Your task to perform on an android device: Go to wifi settings Image 0: 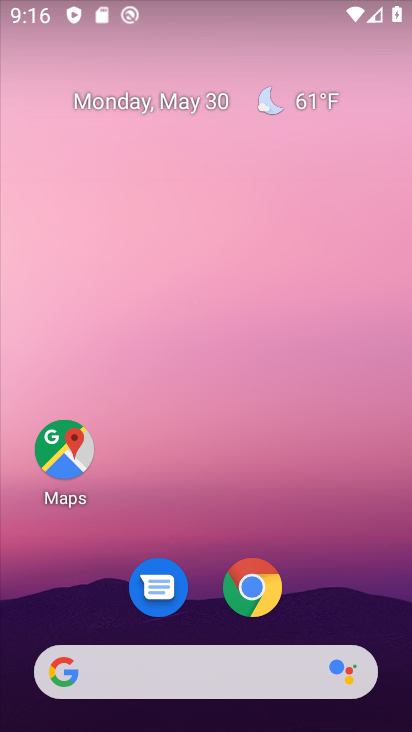
Step 0: drag from (222, 639) to (312, 22)
Your task to perform on an android device: Go to wifi settings Image 1: 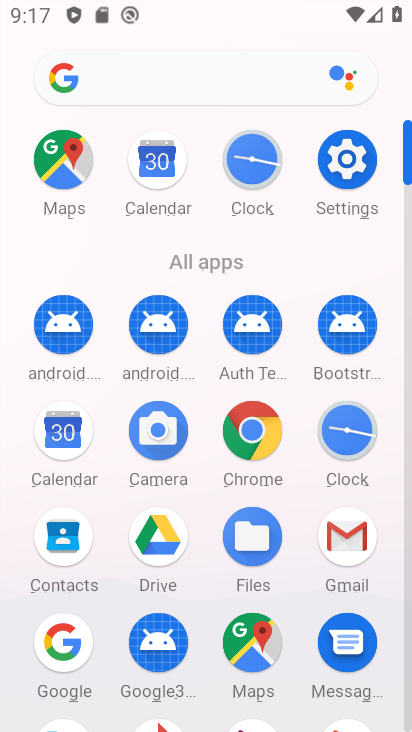
Step 1: click (353, 172)
Your task to perform on an android device: Go to wifi settings Image 2: 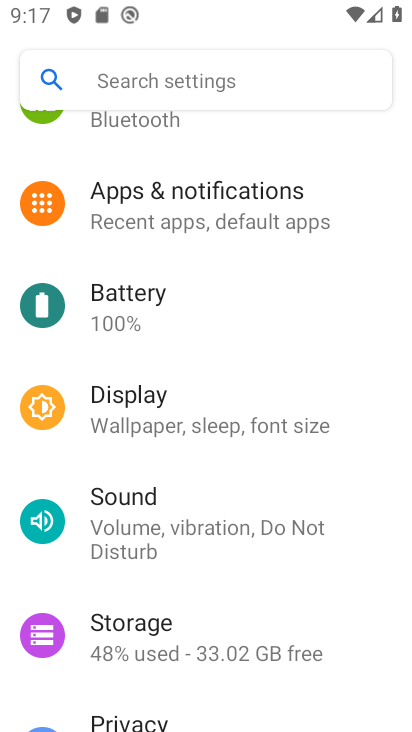
Step 2: drag from (201, 199) to (220, 585)
Your task to perform on an android device: Go to wifi settings Image 3: 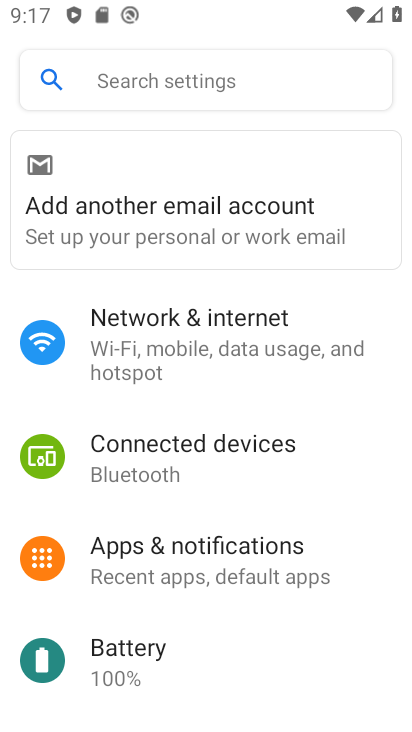
Step 3: click (150, 317)
Your task to perform on an android device: Go to wifi settings Image 4: 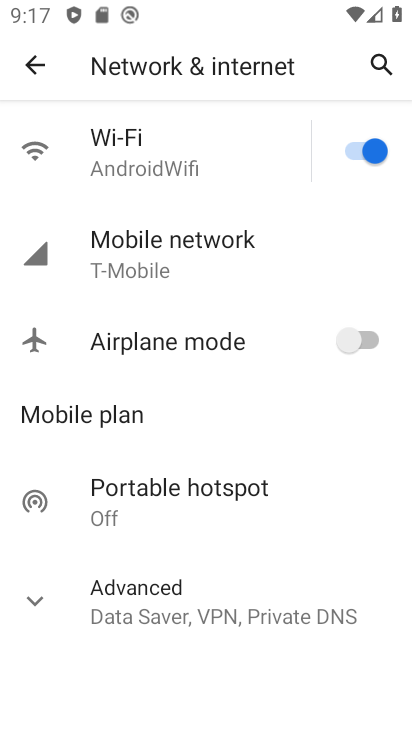
Step 4: click (151, 156)
Your task to perform on an android device: Go to wifi settings Image 5: 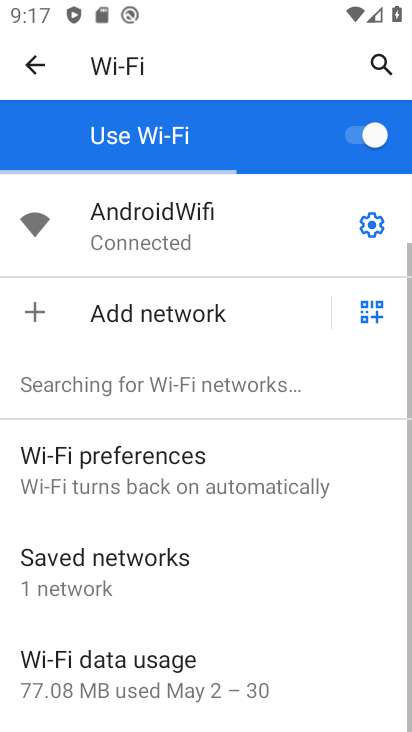
Step 5: task complete